Your task to perform on an android device: What's on my calendar tomorrow? Image 0: 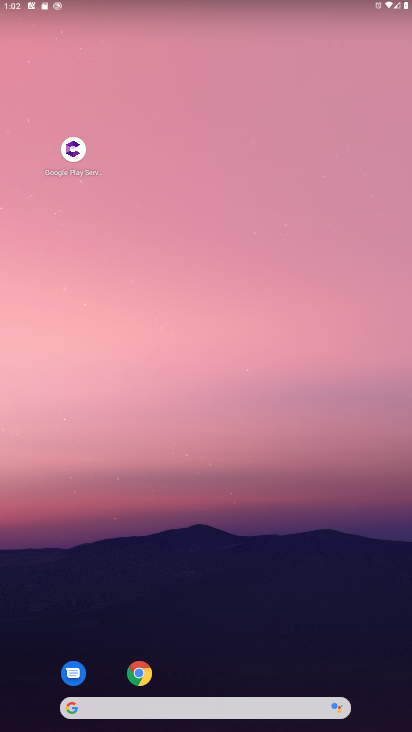
Step 0: drag from (182, 664) to (179, 220)
Your task to perform on an android device: What's on my calendar tomorrow? Image 1: 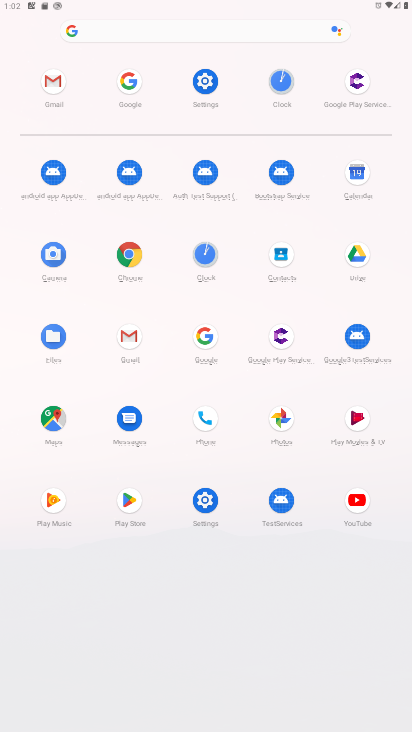
Step 1: click (353, 172)
Your task to perform on an android device: What's on my calendar tomorrow? Image 2: 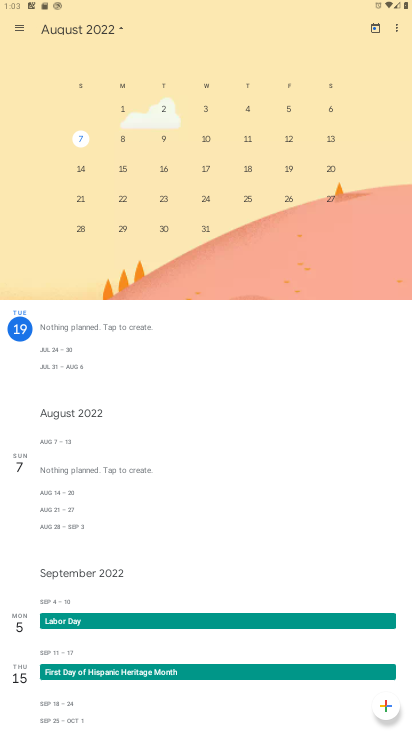
Step 2: drag from (122, 173) to (337, 176)
Your task to perform on an android device: What's on my calendar tomorrow? Image 3: 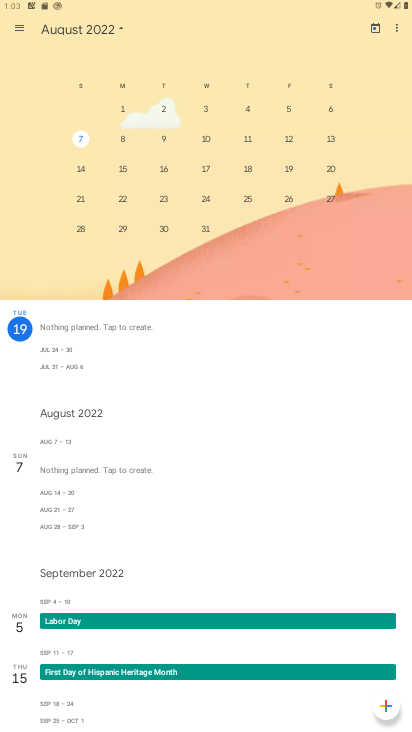
Step 3: click (116, 143)
Your task to perform on an android device: What's on my calendar tomorrow? Image 4: 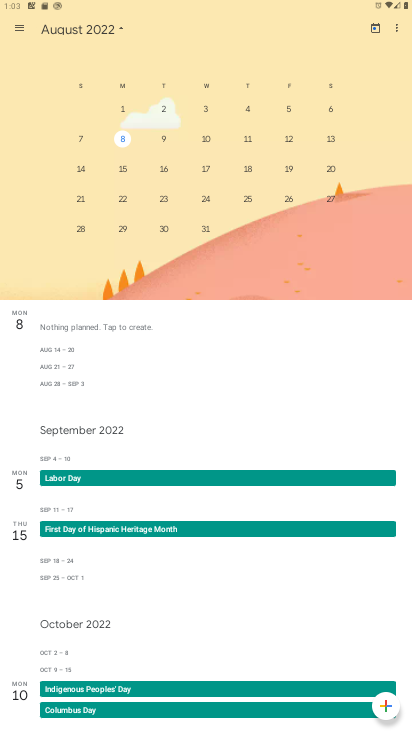
Step 4: task complete